Your task to perform on an android device: turn off data saver in the chrome app Image 0: 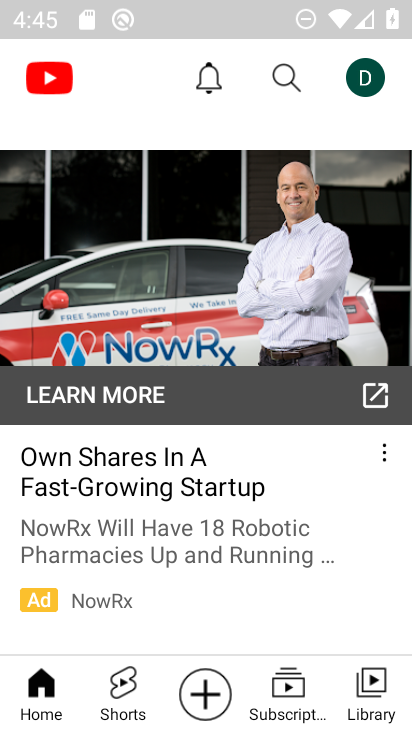
Step 0: press home button
Your task to perform on an android device: turn off data saver in the chrome app Image 1: 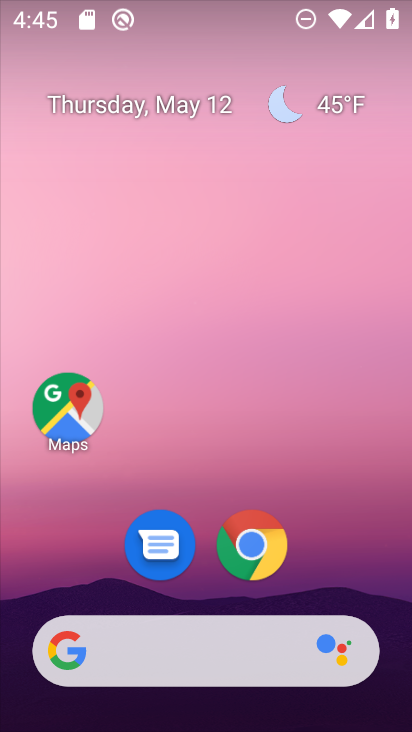
Step 1: click (271, 541)
Your task to perform on an android device: turn off data saver in the chrome app Image 2: 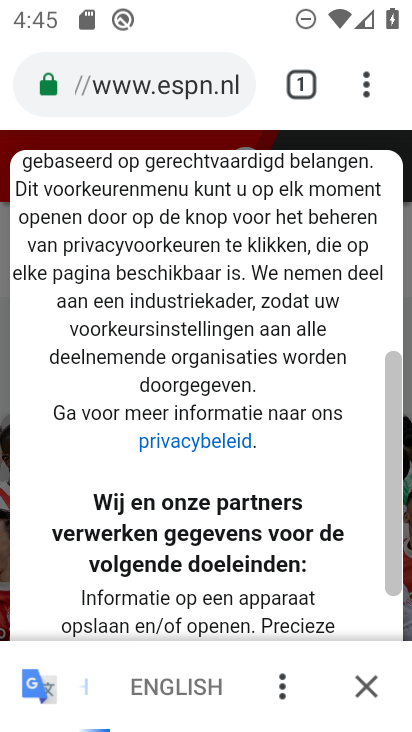
Step 2: click (369, 81)
Your task to perform on an android device: turn off data saver in the chrome app Image 3: 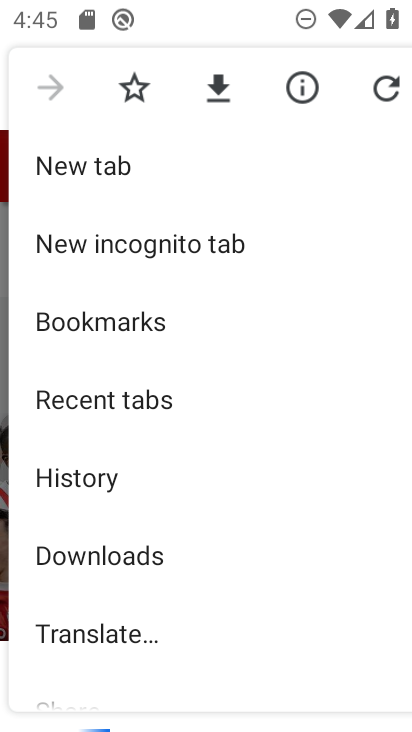
Step 3: drag from (195, 557) to (224, 101)
Your task to perform on an android device: turn off data saver in the chrome app Image 4: 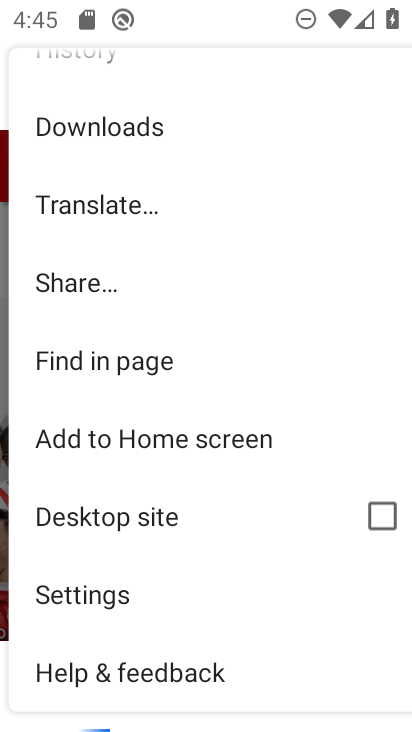
Step 4: drag from (94, 606) to (240, 267)
Your task to perform on an android device: turn off data saver in the chrome app Image 5: 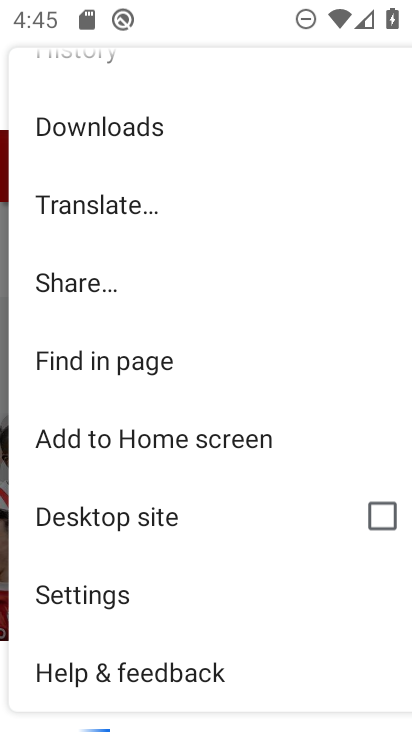
Step 5: click (77, 606)
Your task to perform on an android device: turn off data saver in the chrome app Image 6: 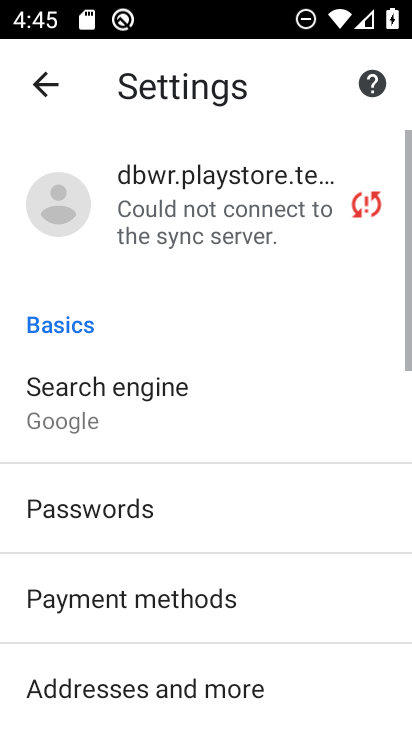
Step 6: drag from (215, 666) to (232, 140)
Your task to perform on an android device: turn off data saver in the chrome app Image 7: 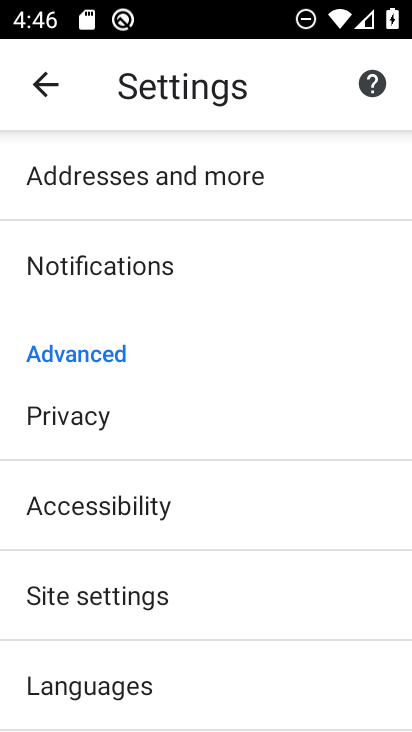
Step 7: drag from (185, 607) to (219, 162)
Your task to perform on an android device: turn off data saver in the chrome app Image 8: 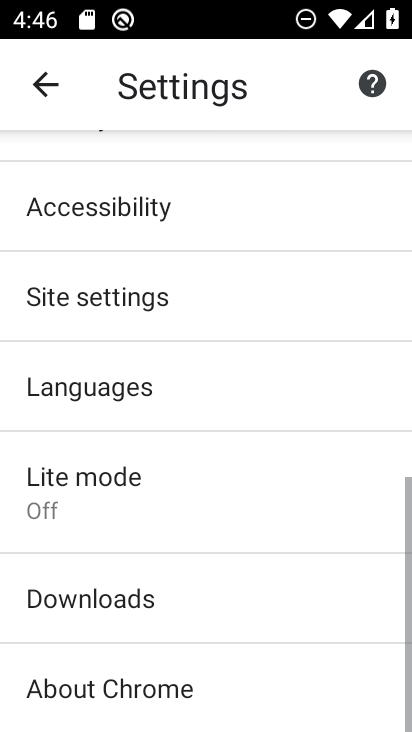
Step 8: drag from (113, 627) to (184, 250)
Your task to perform on an android device: turn off data saver in the chrome app Image 9: 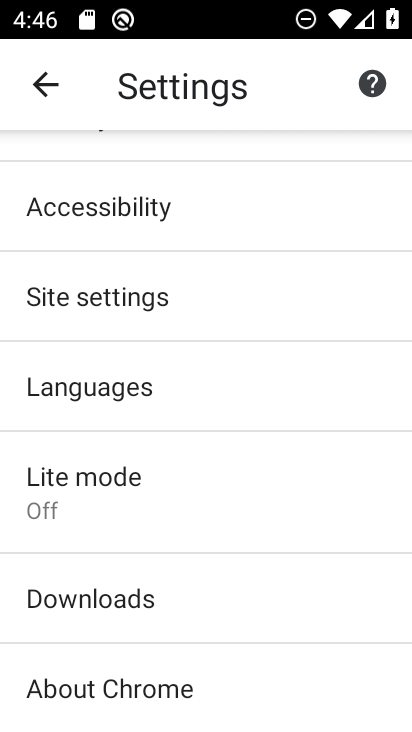
Step 9: click (84, 526)
Your task to perform on an android device: turn off data saver in the chrome app Image 10: 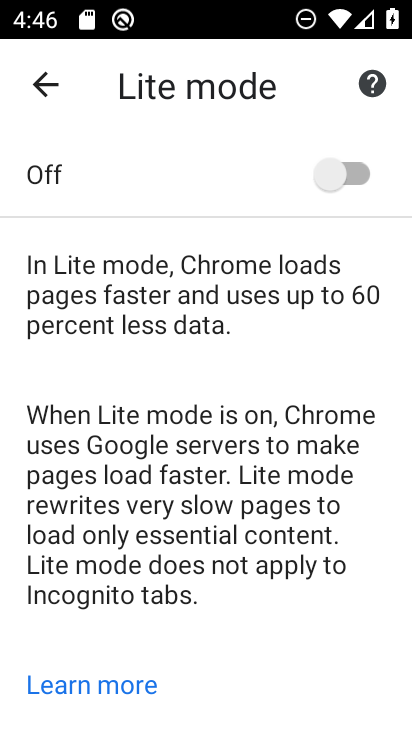
Step 10: task complete